Your task to perform on an android device: What's the news this week? Image 0: 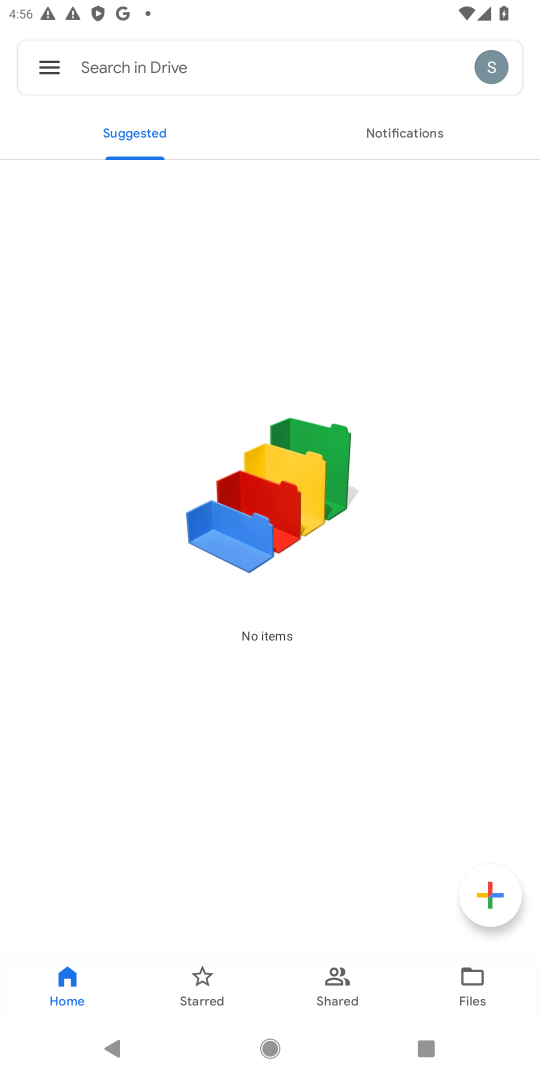
Step 0: press home button
Your task to perform on an android device: What's the news this week? Image 1: 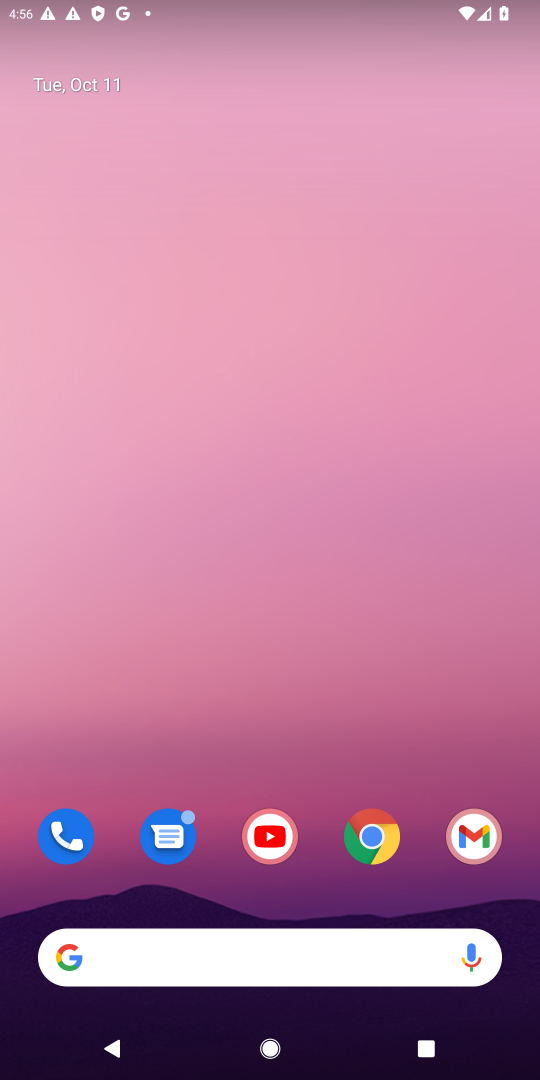
Step 1: click (372, 835)
Your task to perform on an android device: What's the news this week? Image 2: 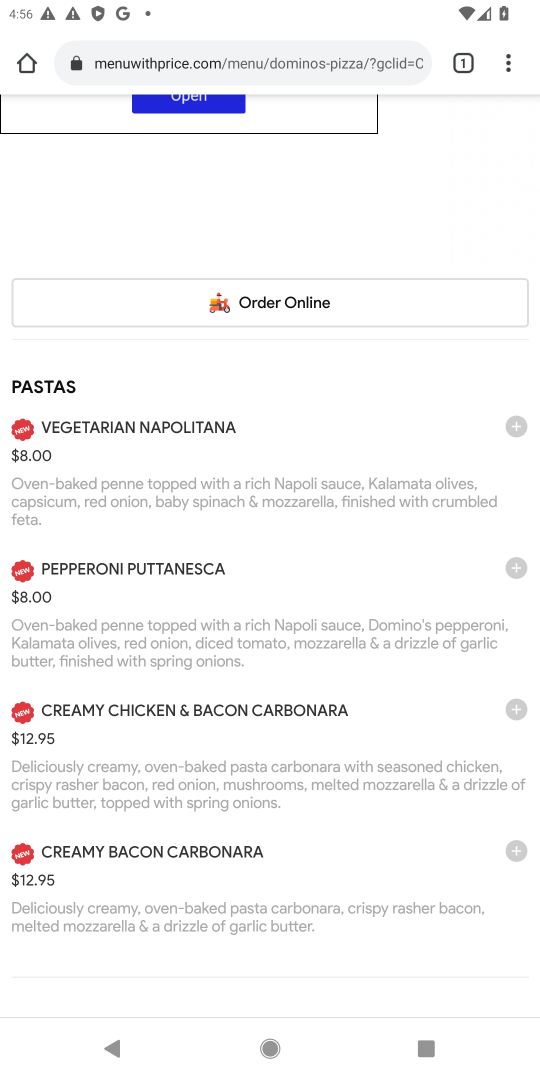
Step 2: click (286, 52)
Your task to perform on an android device: What's the news this week? Image 3: 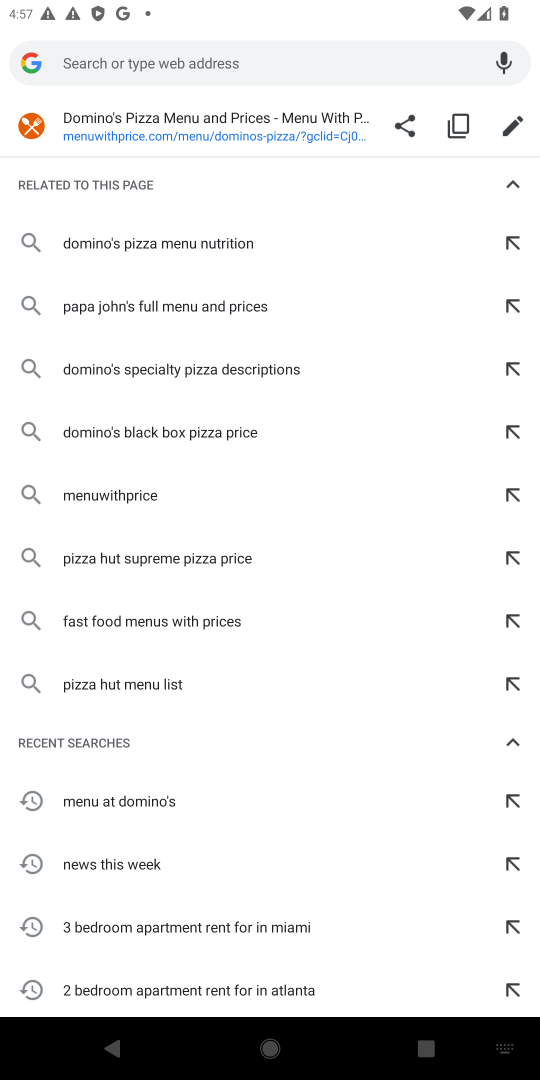
Step 3: type "news this week"
Your task to perform on an android device: What's the news this week? Image 4: 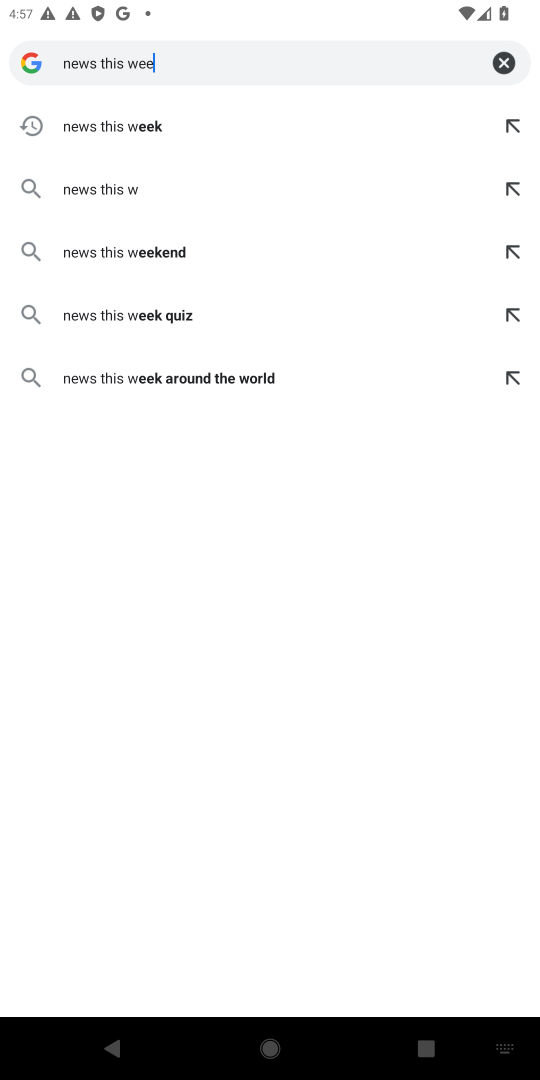
Step 4: press enter
Your task to perform on an android device: What's the news this week? Image 5: 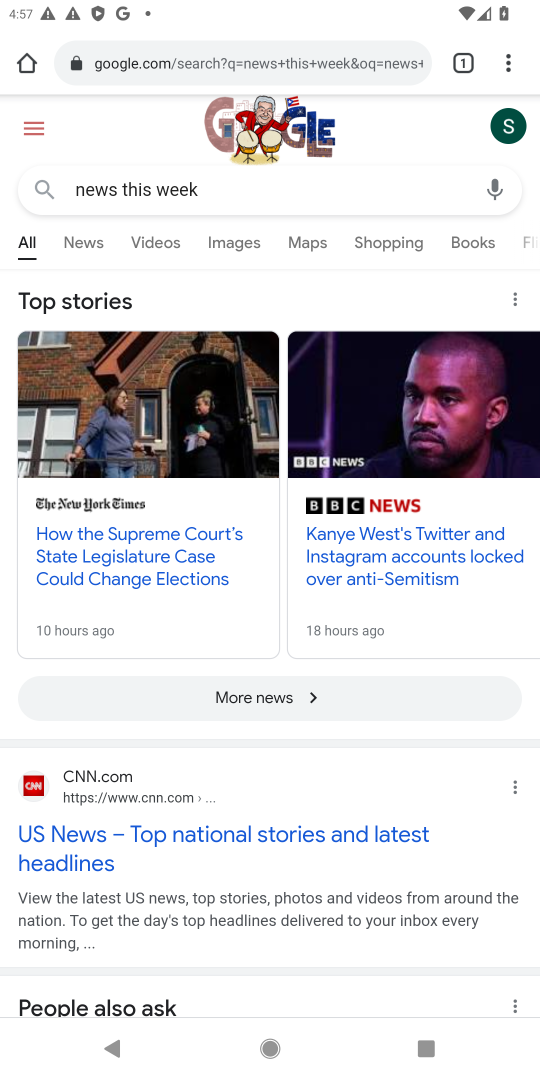
Step 5: click (75, 239)
Your task to perform on an android device: What's the news this week? Image 6: 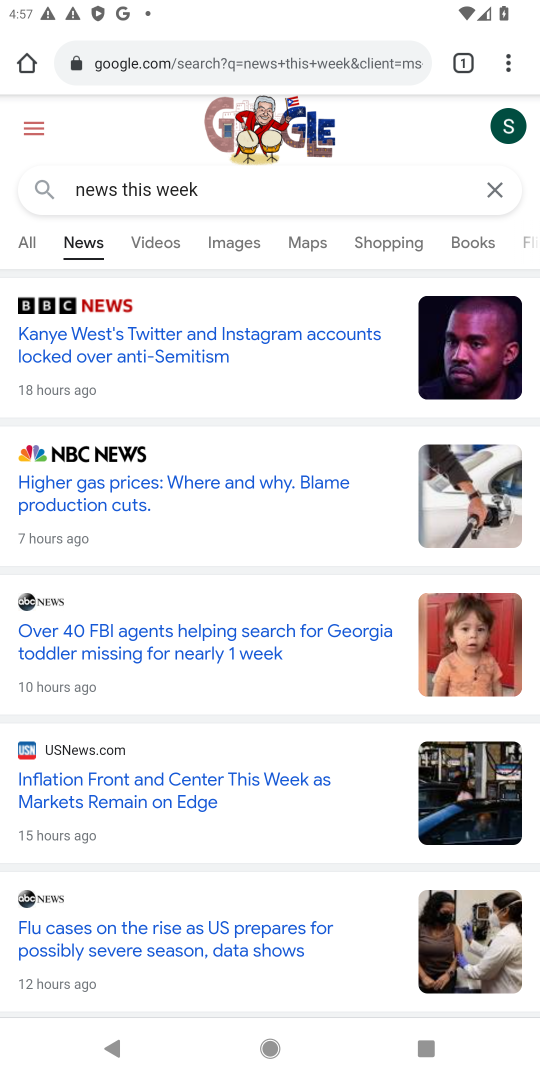
Step 6: task complete